Your task to perform on an android device: change alarm snooze length Image 0: 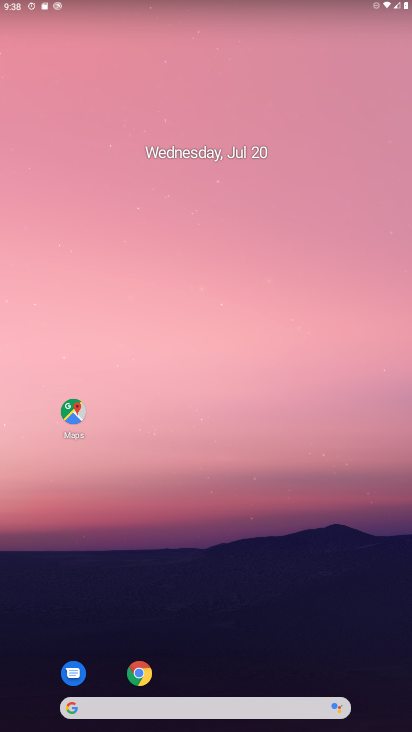
Step 0: drag from (323, 629) to (234, 88)
Your task to perform on an android device: change alarm snooze length Image 1: 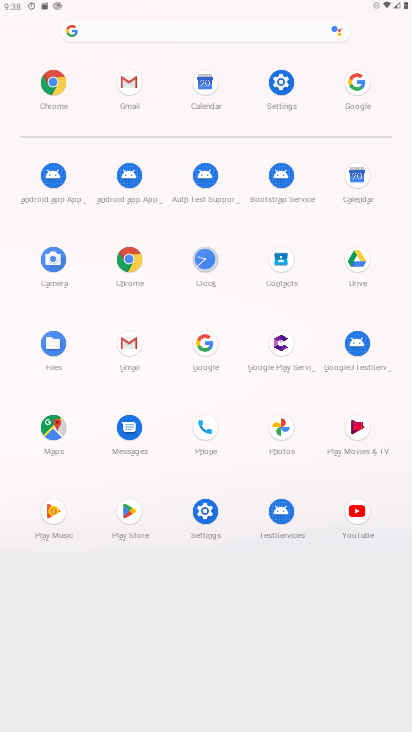
Step 1: click (200, 263)
Your task to perform on an android device: change alarm snooze length Image 2: 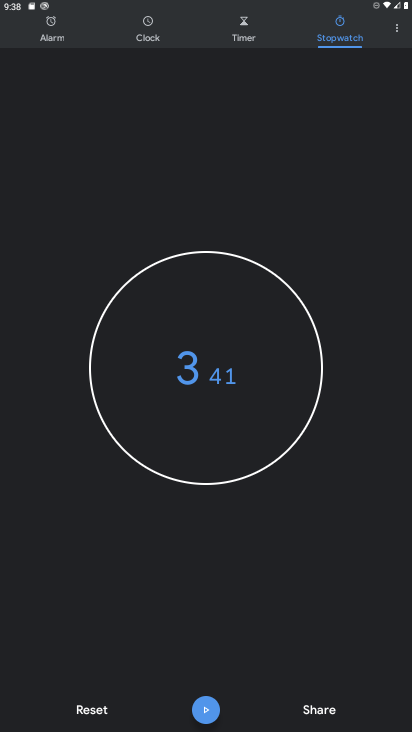
Step 2: click (390, 32)
Your task to perform on an android device: change alarm snooze length Image 3: 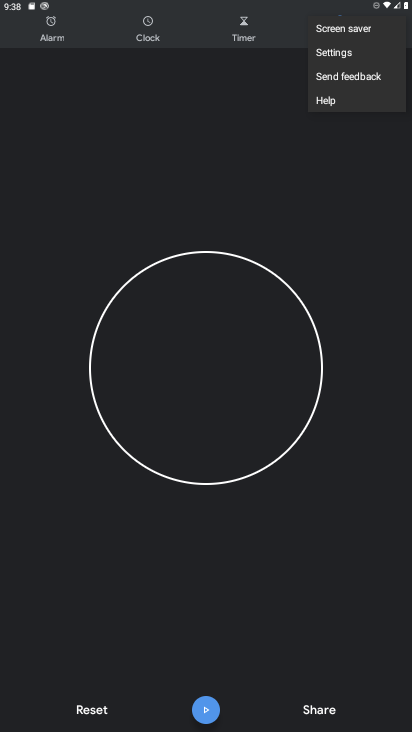
Step 3: click (337, 57)
Your task to perform on an android device: change alarm snooze length Image 4: 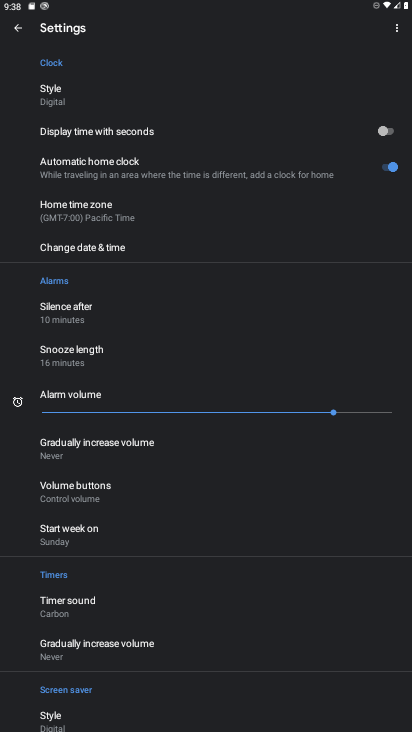
Step 4: click (98, 364)
Your task to perform on an android device: change alarm snooze length Image 5: 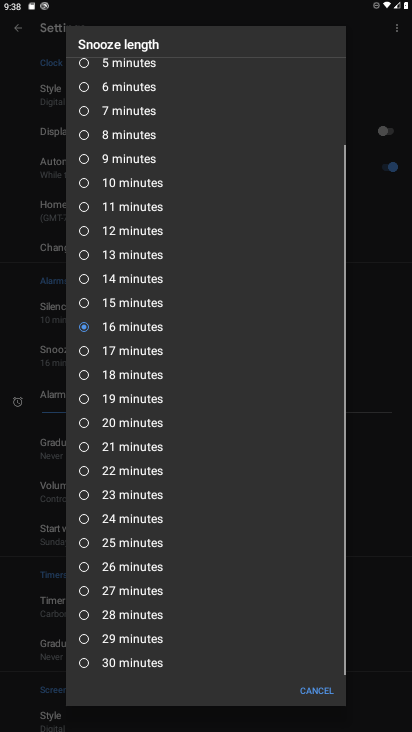
Step 5: click (109, 354)
Your task to perform on an android device: change alarm snooze length Image 6: 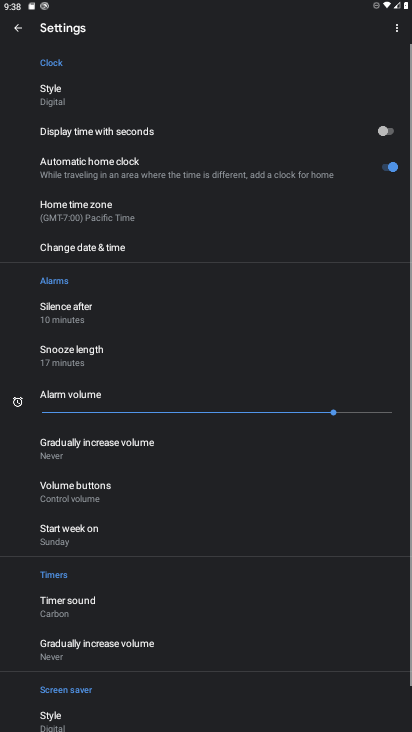
Step 6: task complete